Your task to perform on an android device: Go to network settings Image 0: 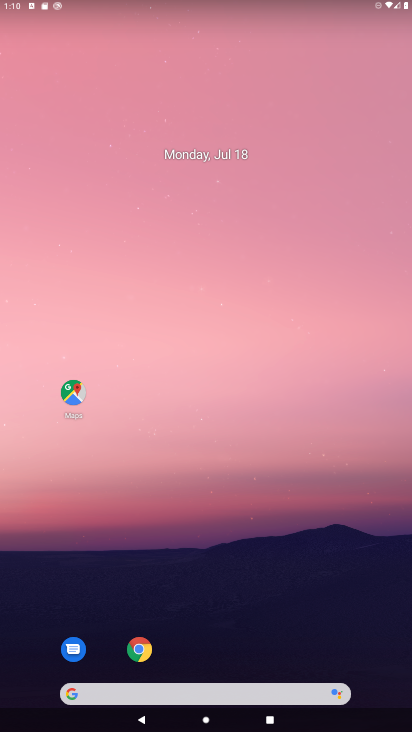
Step 0: drag from (347, 662) to (304, 146)
Your task to perform on an android device: Go to network settings Image 1: 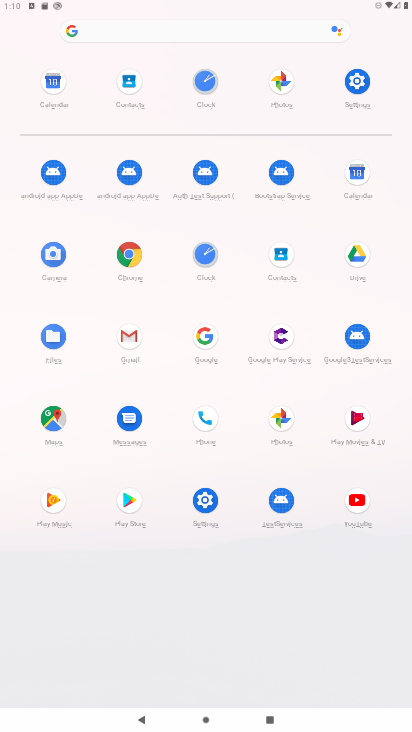
Step 1: click (205, 501)
Your task to perform on an android device: Go to network settings Image 2: 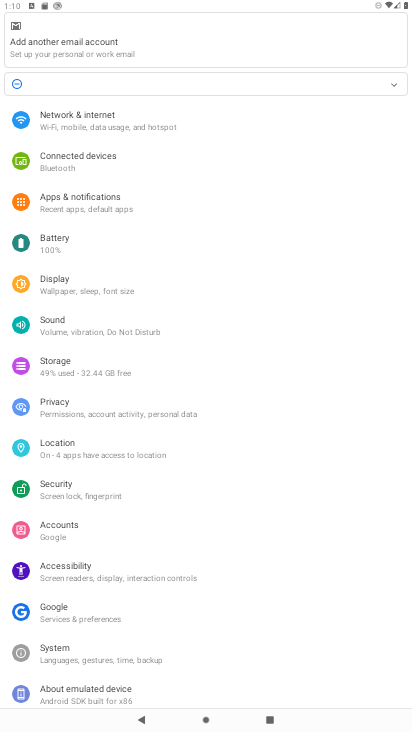
Step 2: click (83, 103)
Your task to perform on an android device: Go to network settings Image 3: 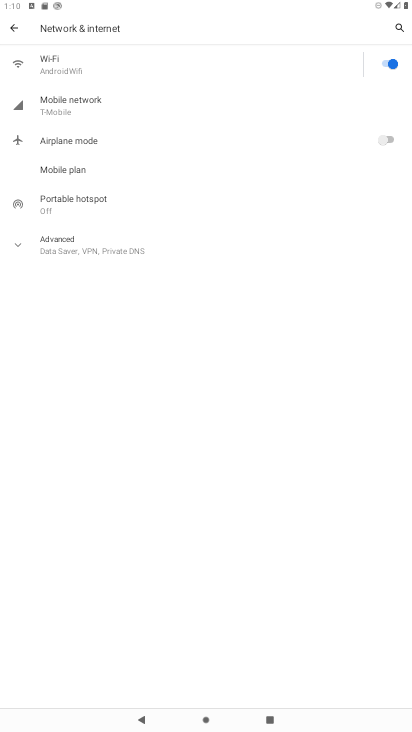
Step 3: click (52, 99)
Your task to perform on an android device: Go to network settings Image 4: 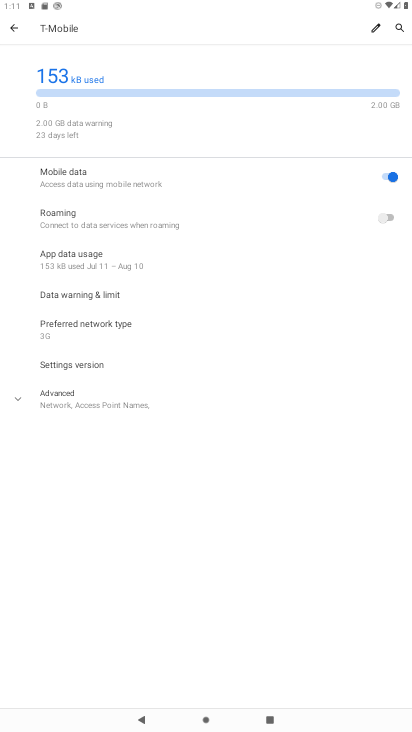
Step 4: task complete